Your task to perform on an android device: Open accessibility settings Image 0: 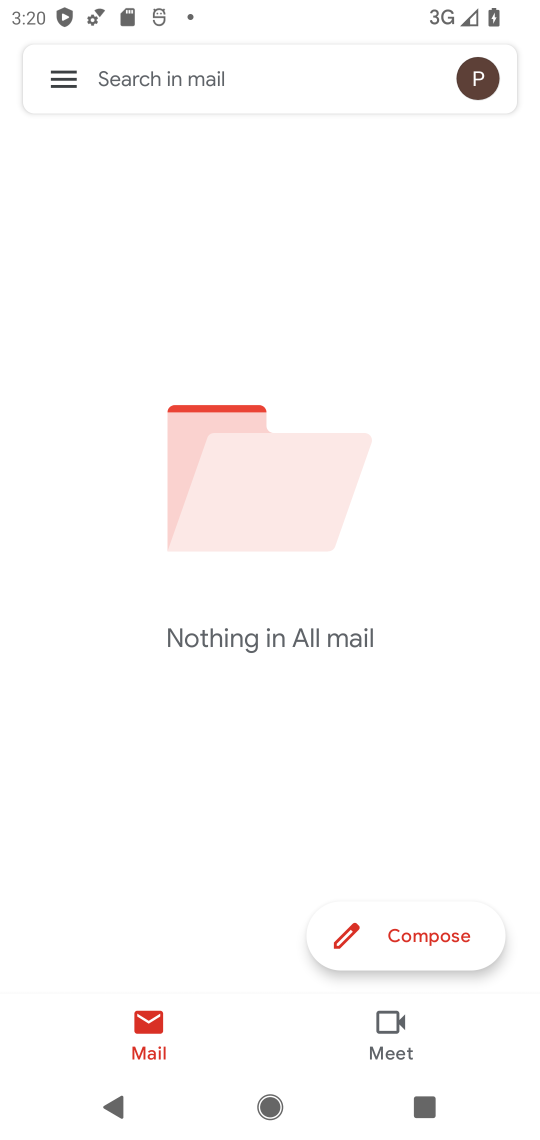
Step 0: press home button
Your task to perform on an android device: Open accessibility settings Image 1: 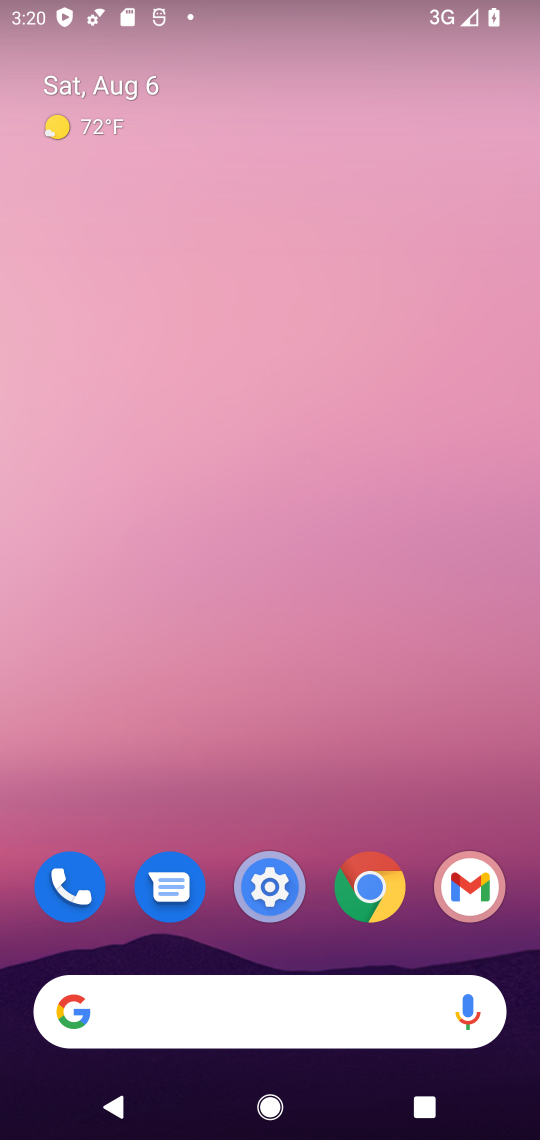
Step 1: drag from (433, 769) to (428, 272)
Your task to perform on an android device: Open accessibility settings Image 2: 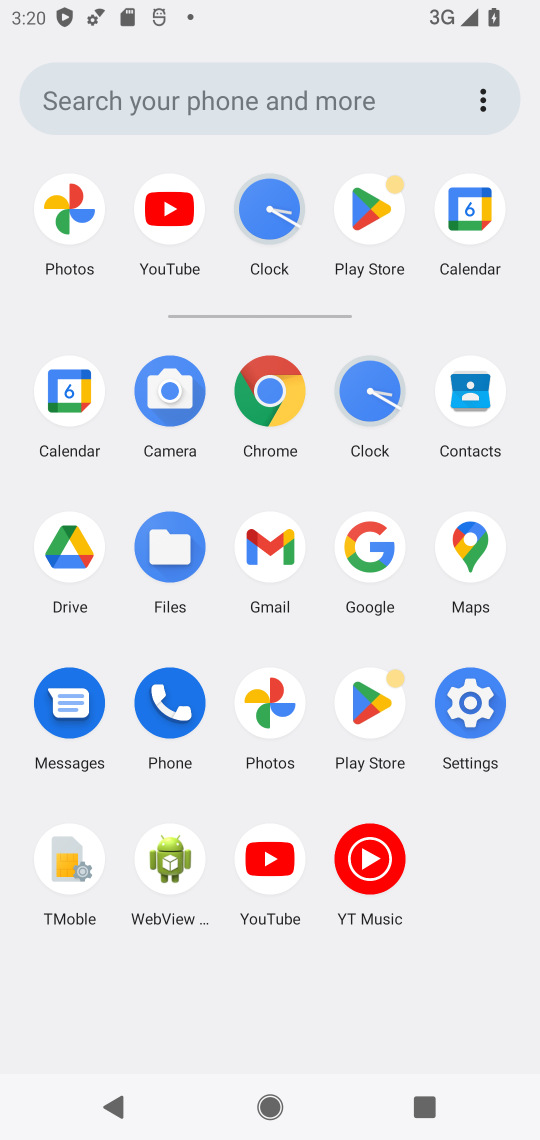
Step 2: click (468, 710)
Your task to perform on an android device: Open accessibility settings Image 3: 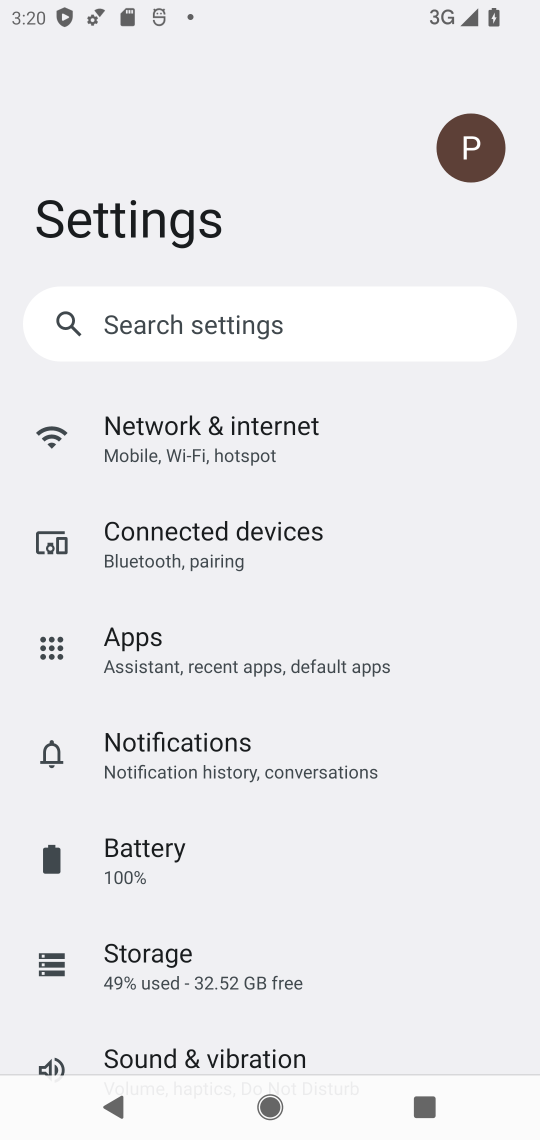
Step 3: drag from (396, 805) to (405, 529)
Your task to perform on an android device: Open accessibility settings Image 4: 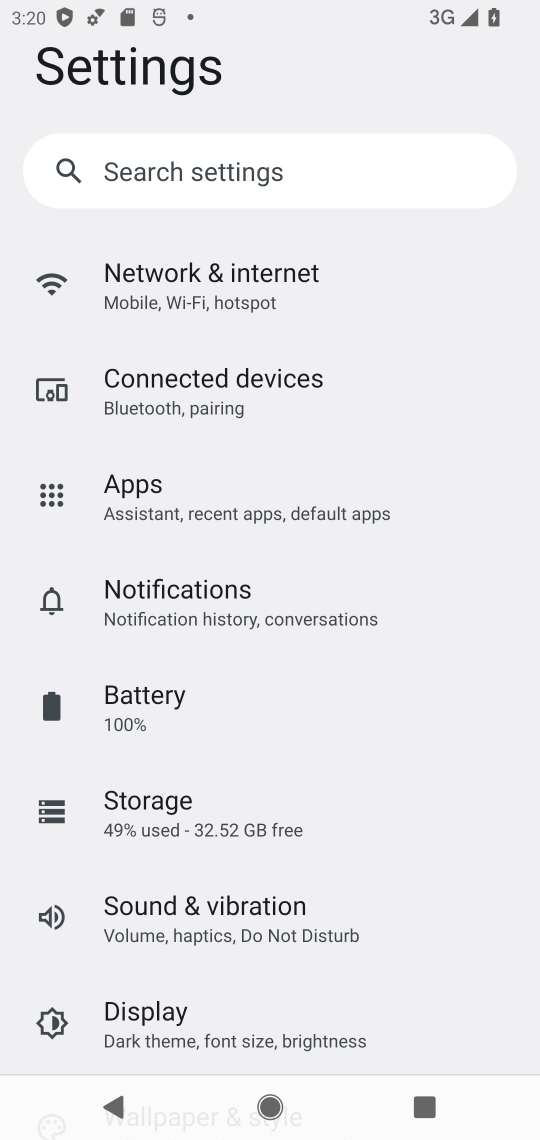
Step 4: drag from (432, 737) to (438, 518)
Your task to perform on an android device: Open accessibility settings Image 5: 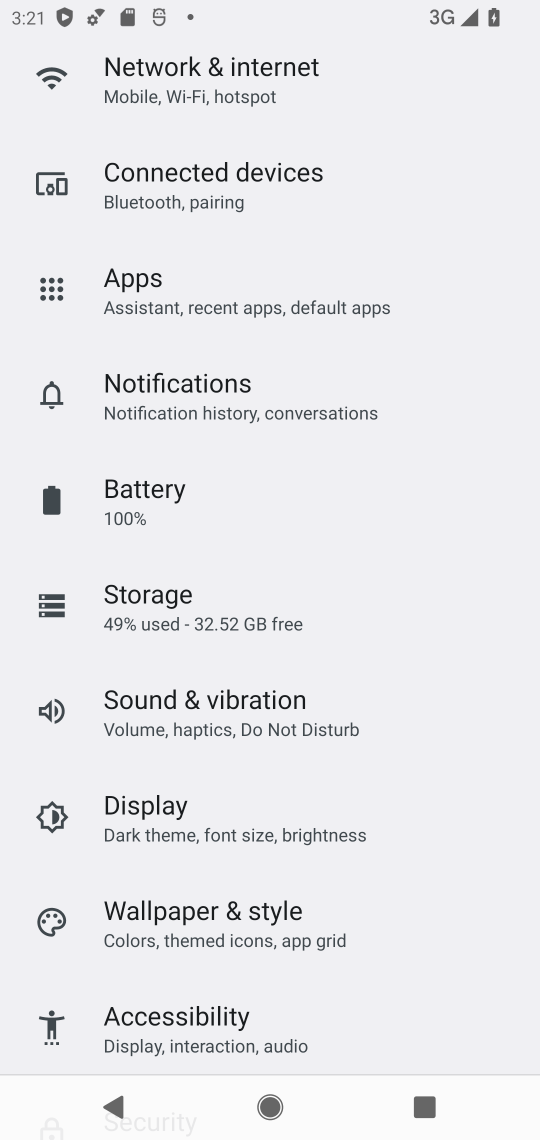
Step 5: drag from (443, 756) to (467, 513)
Your task to perform on an android device: Open accessibility settings Image 6: 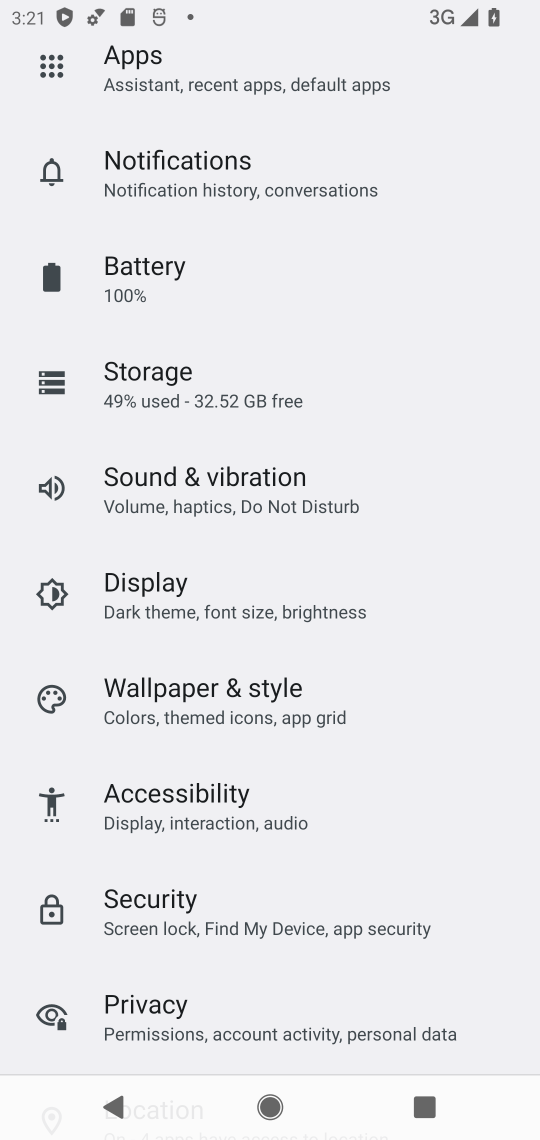
Step 6: drag from (462, 601) to (467, 543)
Your task to perform on an android device: Open accessibility settings Image 7: 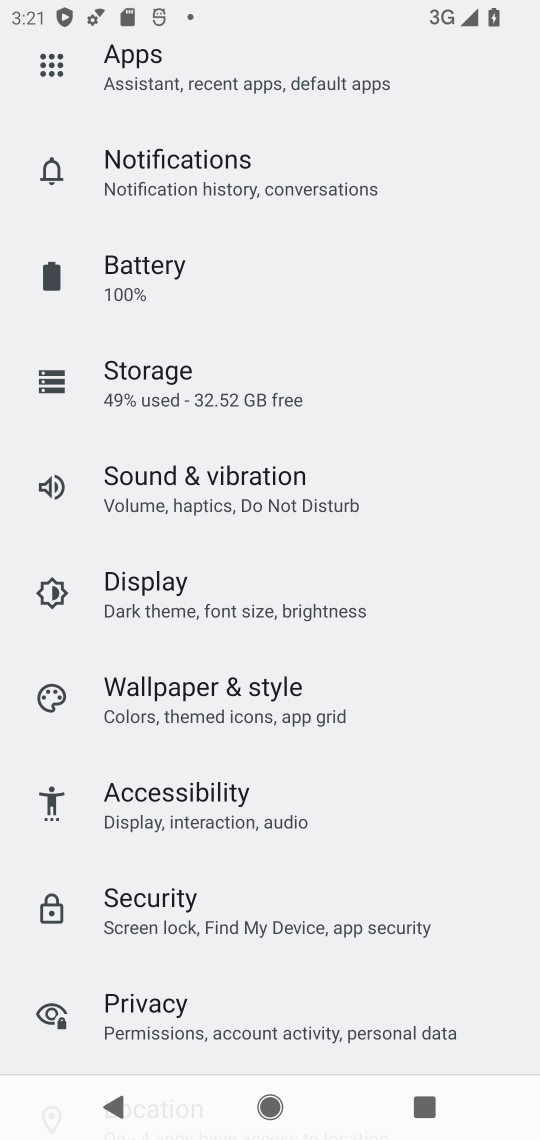
Step 7: click (288, 804)
Your task to perform on an android device: Open accessibility settings Image 8: 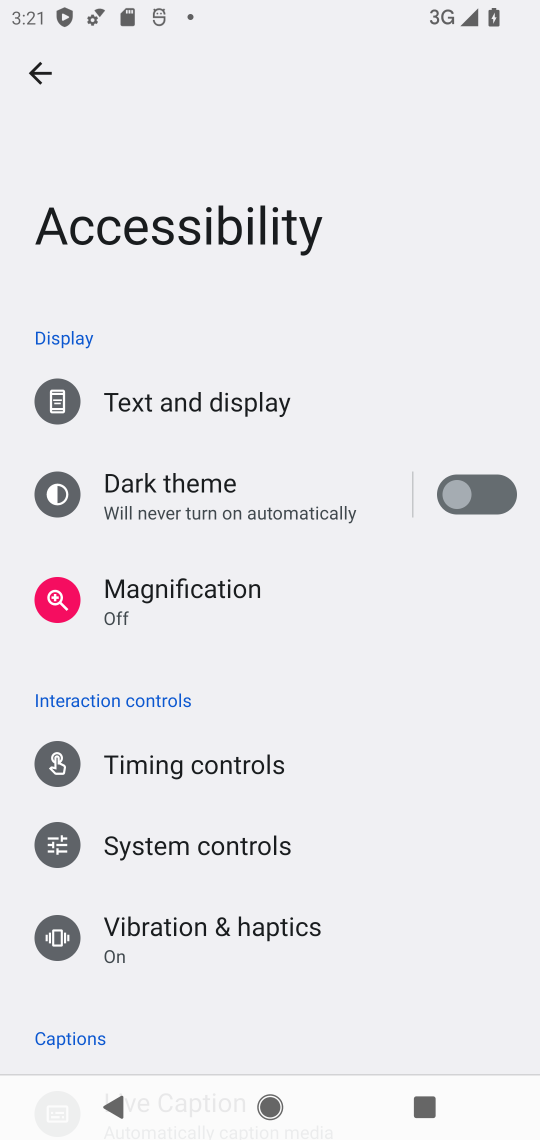
Step 8: task complete